Your task to perform on an android device: Search for "dell xps" on walmart.com, select the first entry, and add it to the cart. Image 0: 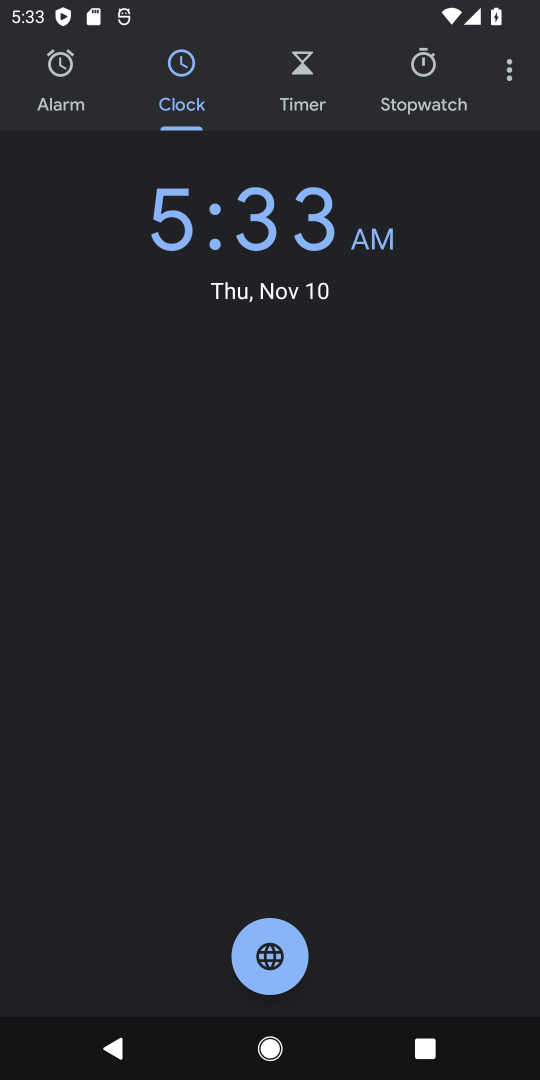
Step 0: press home button
Your task to perform on an android device: Search for "dell xps" on walmart.com, select the first entry, and add it to the cart. Image 1: 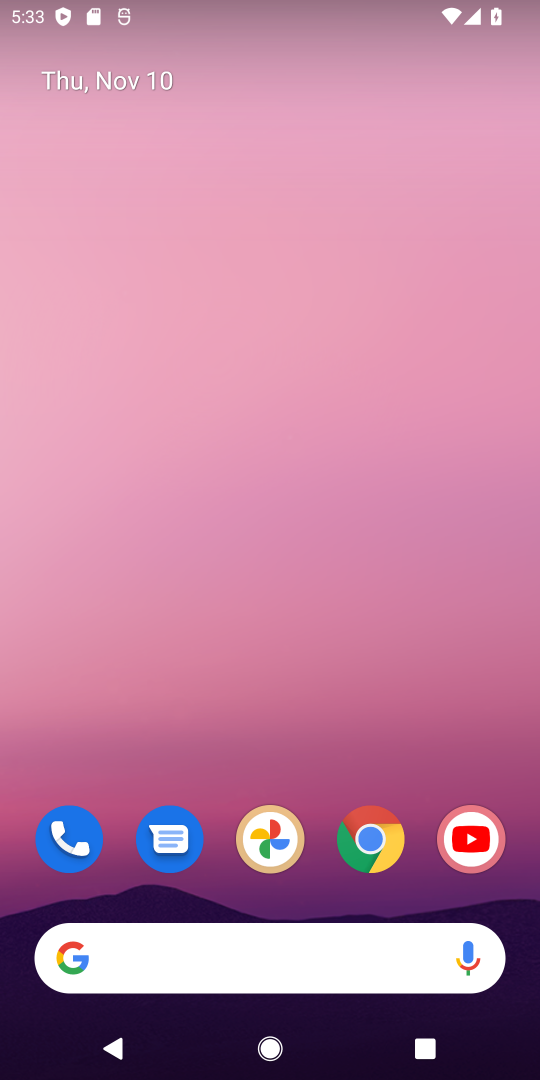
Step 1: click (365, 843)
Your task to perform on an android device: Search for "dell xps" on walmart.com, select the first entry, and add it to the cart. Image 2: 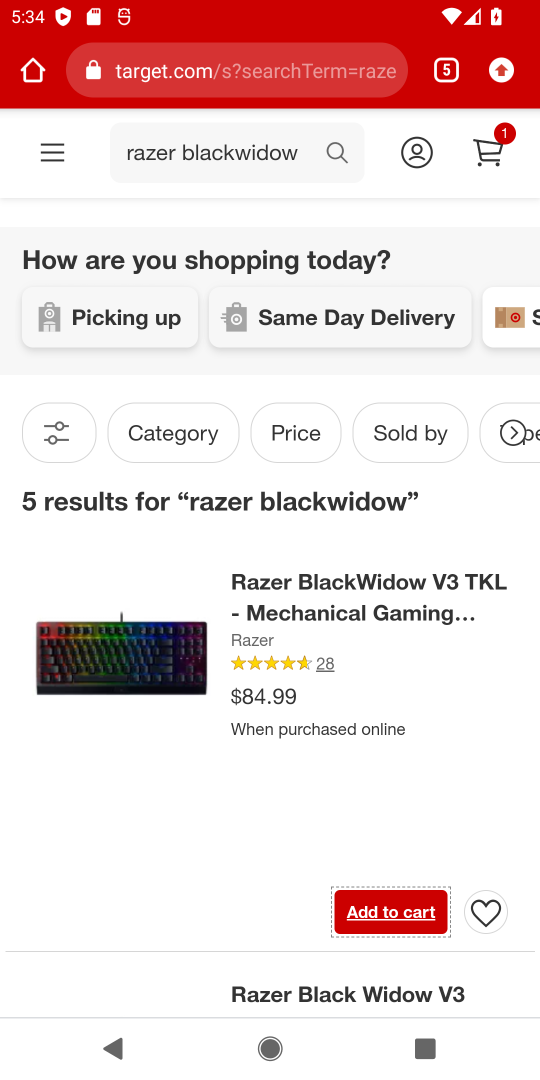
Step 2: click (450, 80)
Your task to perform on an android device: Search for "dell xps" on walmart.com, select the first entry, and add it to the cart. Image 3: 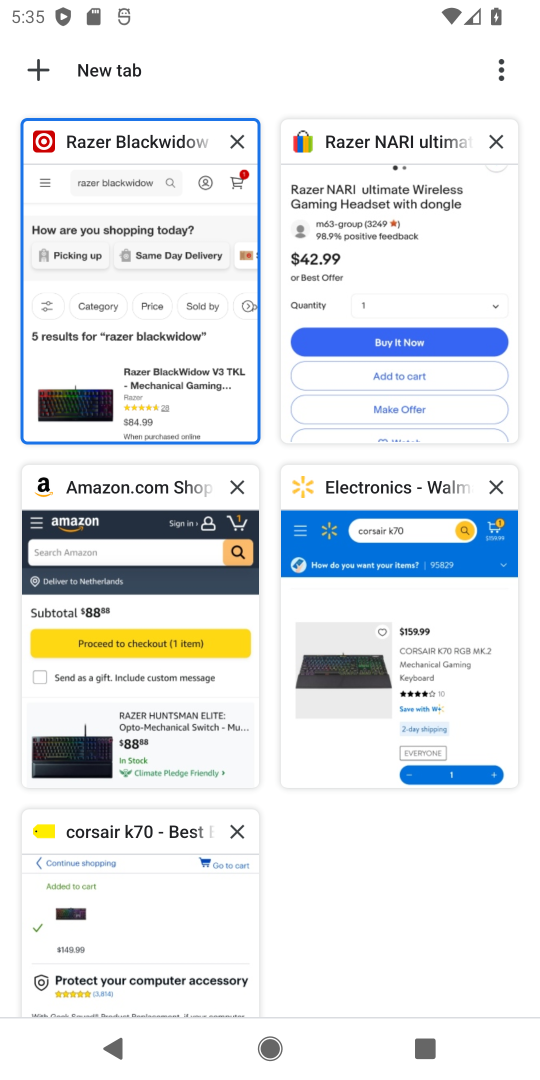
Step 3: click (348, 516)
Your task to perform on an android device: Search for "dell xps" on walmart.com, select the first entry, and add it to the cart. Image 4: 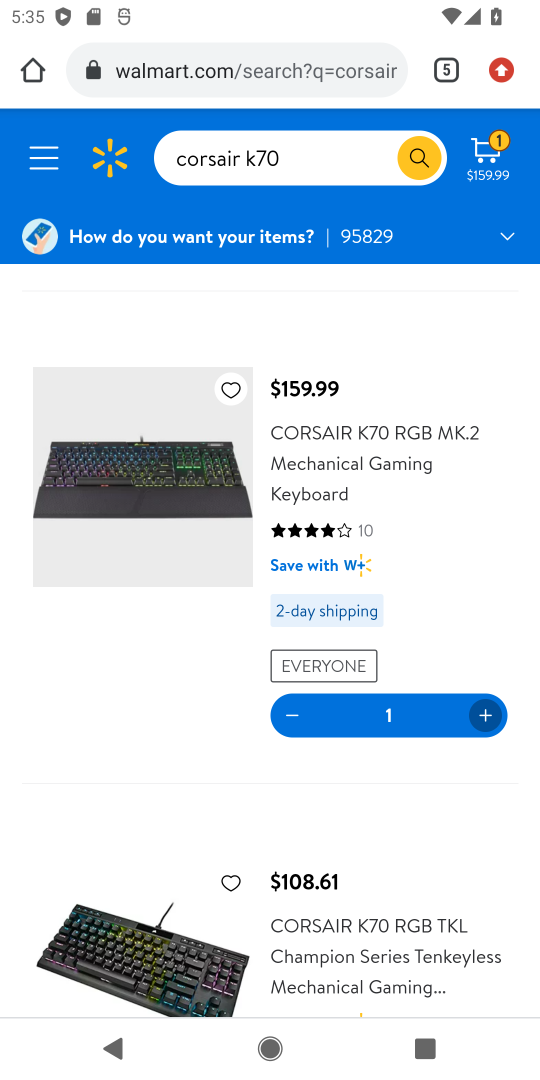
Step 4: click (302, 155)
Your task to perform on an android device: Search for "dell xps" on walmart.com, select the first entry, and add it to the cart. Image 5: 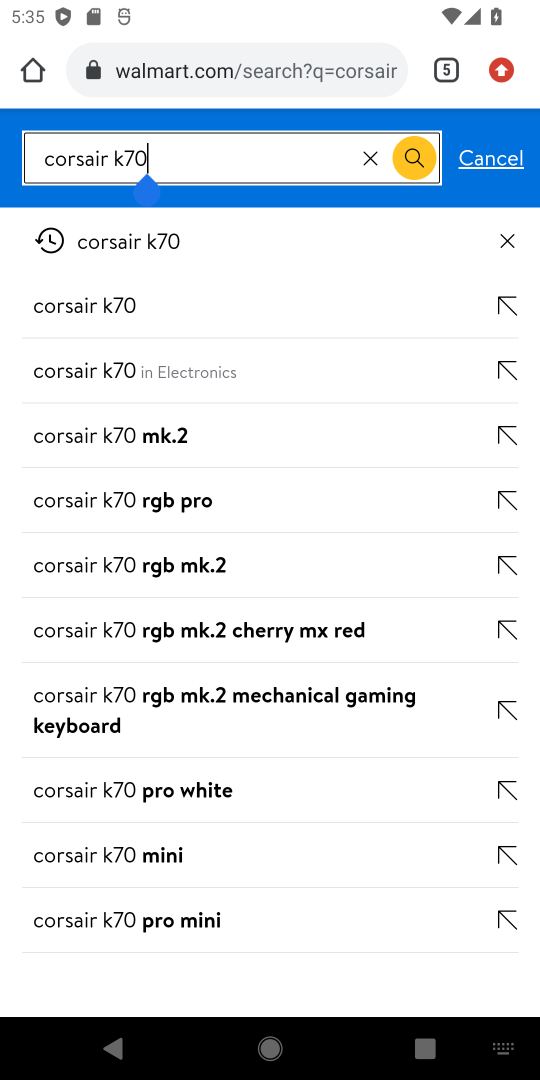
Step 5: click (371, 161)
Your task to perform on an android device: Search for "dell xps" on walmart.com, select the first entry, and add it to the cart. Image 6: 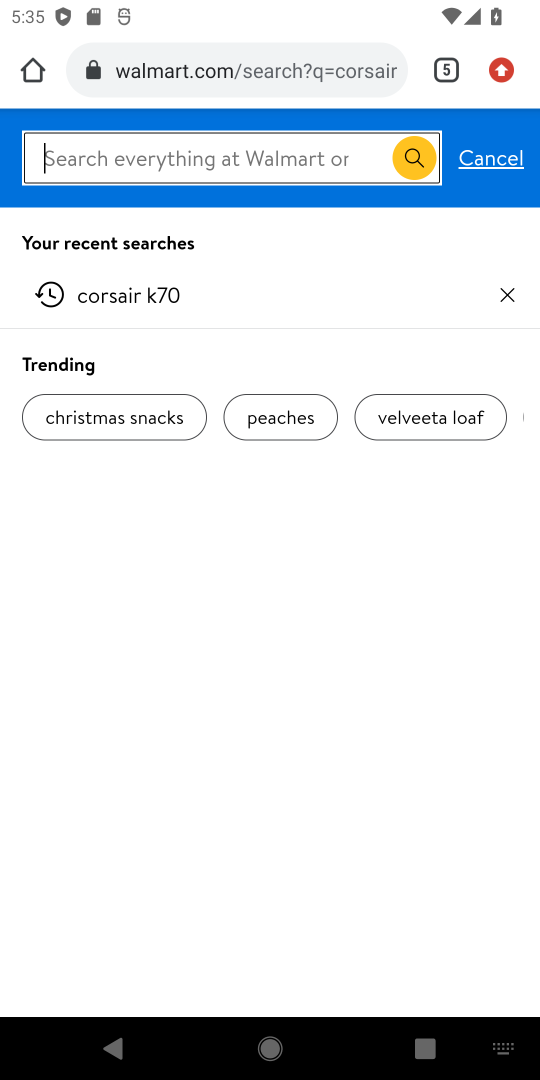
Step 6: type "dell xps"
Your task to perform on an android device: Search for "dell xps" on walmart.com, select the first entry, and add it to the cart. Image 7: 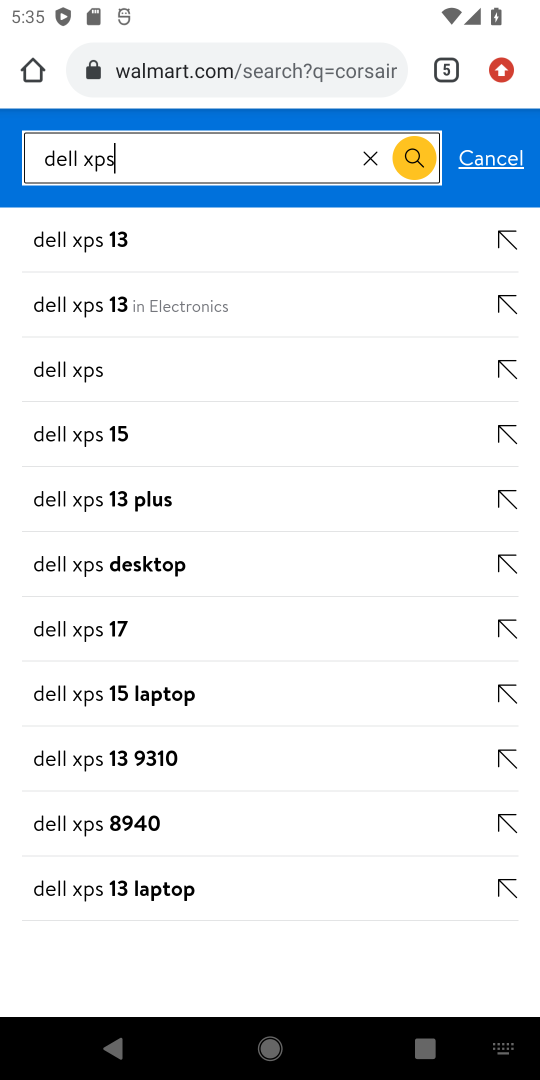
Step 7: click (131, 307)
Your task to perform on an android device: Search for "dell xps" on walmart.com, select the first entry, and add it to the cart. Image 8: 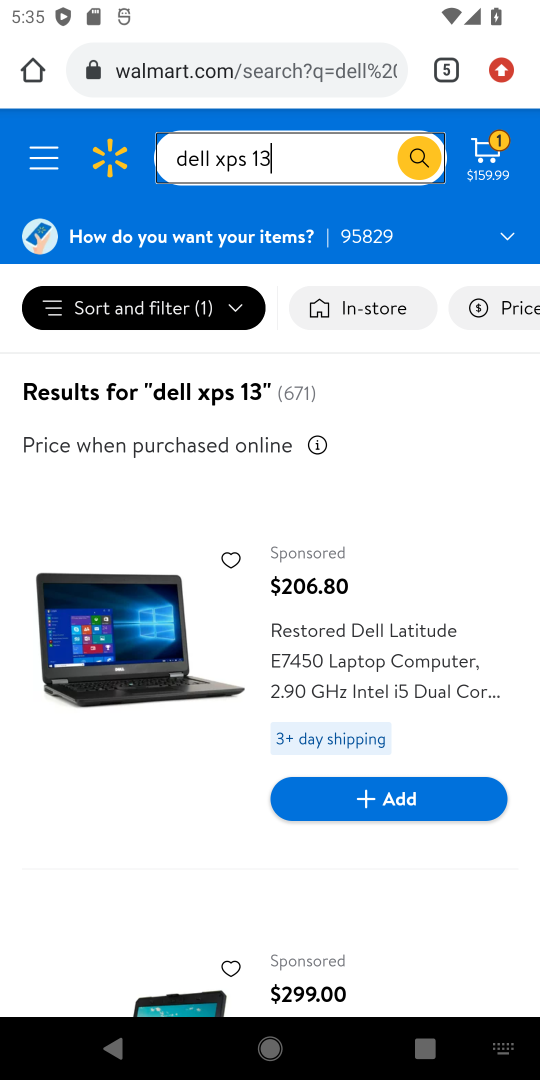
Step 8: drag from (343, 674) to (410, 211)
Your task to perform on an android device: Search for "dell xps" on walmart.com, select the first entry, and add it to the cart. Image 9: 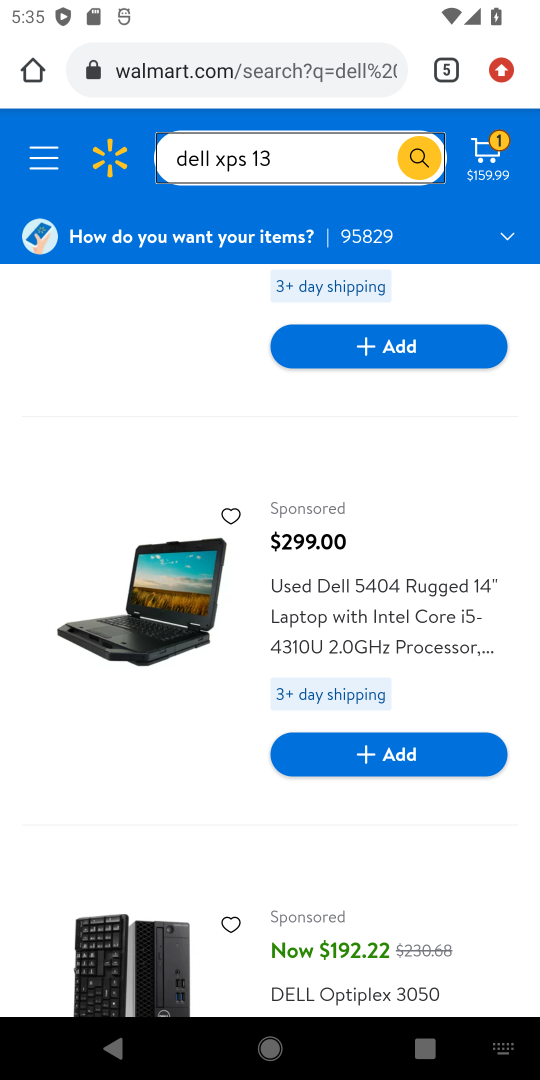
Step 9: drag from (414, 946) to (502, 446)
Your task to perform on an android device: Search for "dell xps" on walmart.com, select the first entry, and add it to the cart. Image 10: 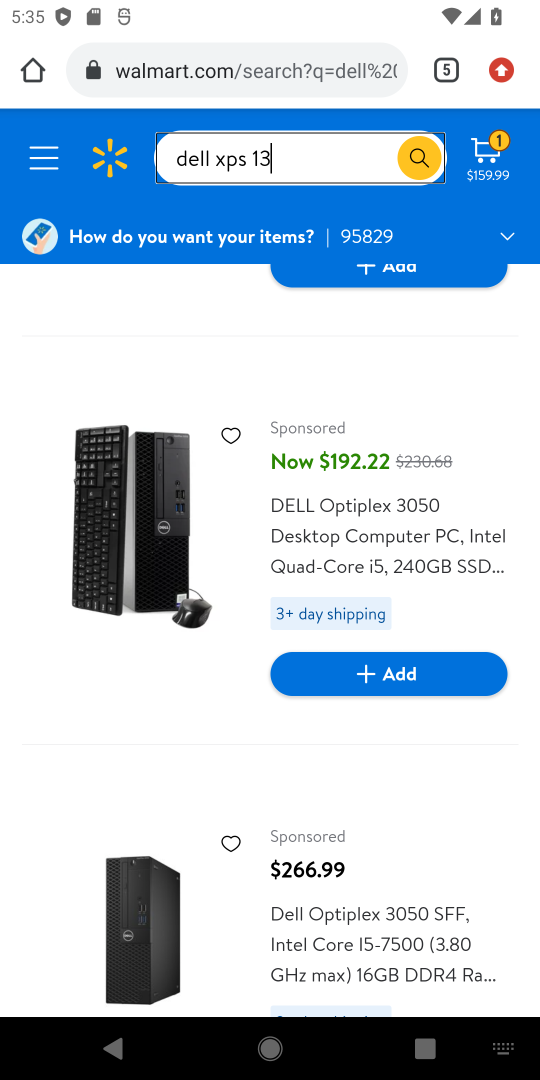
Step 10: drag from (323, 896) to (357, 429)
Your task to perform on an android device: Search for "dell xps" on walmart.com, select the first entry, and add it to the cart. Image 11: 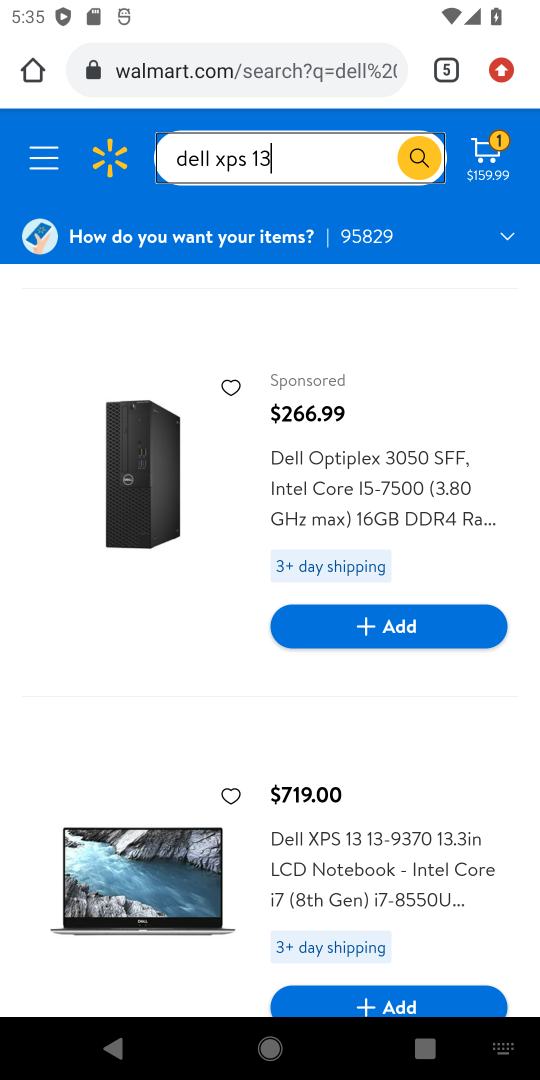
Step 11: drag from (400, 920) to (444, 570)
Your task to perform on an android device: Search for "dell xps" on walmart.com, select the first entry, and add it to the cart. Image 12: 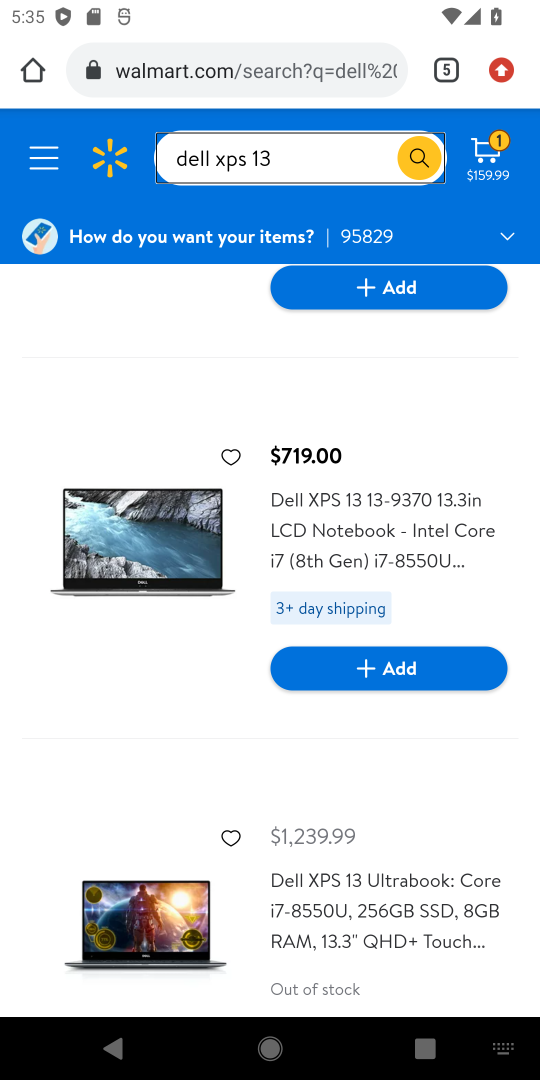
Step 12: click (408, 669)
Your task to perform on an android device: Search for "dell xps" on walmart.com, select the first entry, and add it to the cart. Image 13: 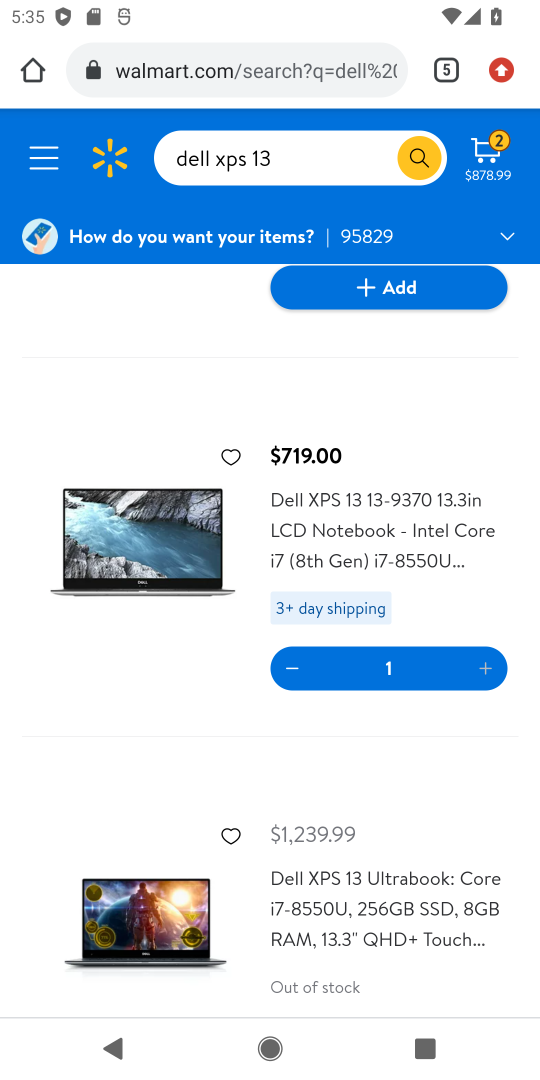
Step 13: task complete